Your task to perform on an android device: Open Chrome and go to settings Image 0: 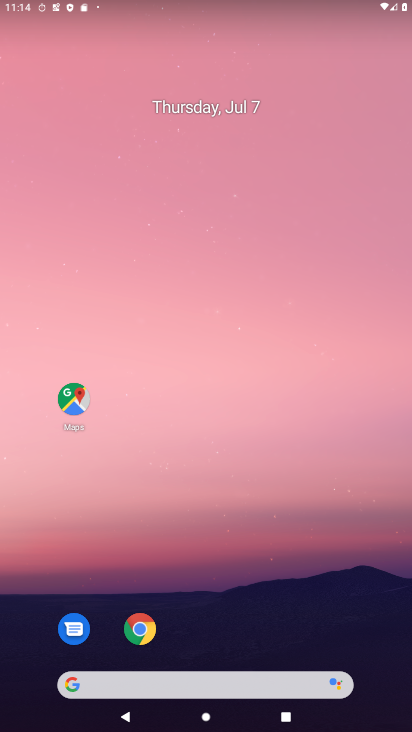
Step 0: press home button
Your task to perform on an android device: Open Chrome and go to settings Image 1: 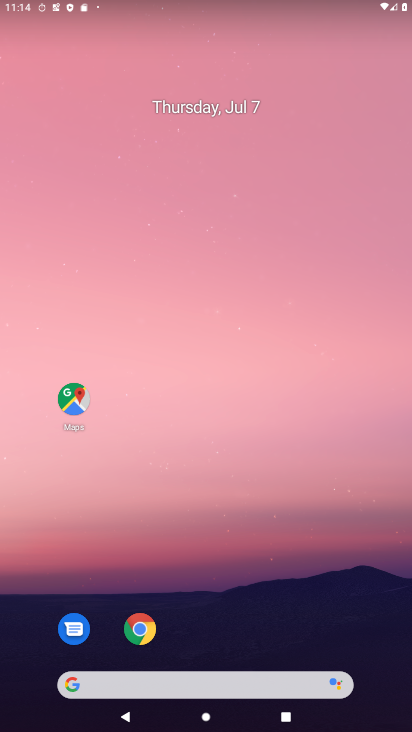
Step 1: drag from (266, 627) to (227, 171)
Your task to perform on an android device: Open Chrome and go to settings Image 2: 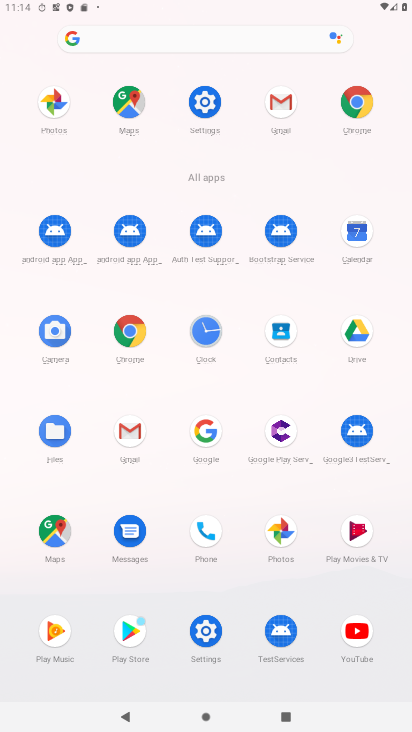
Step 2: click (352, 102)
Your task to perform on an android device: Open Chrome and go to settings Image 3: 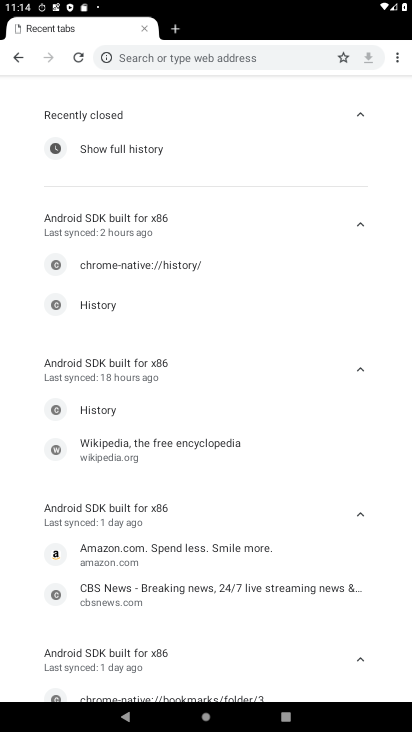
Step 3: task complete